Your task to perform on an android device: change notification settings in the gmail app Image 0: 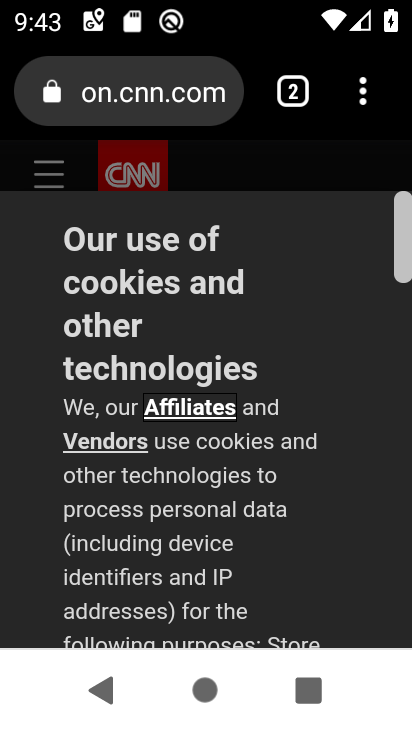
Step 0: press home button
Your task to perform on an android device: change notification settings in the gmail app Image 1: 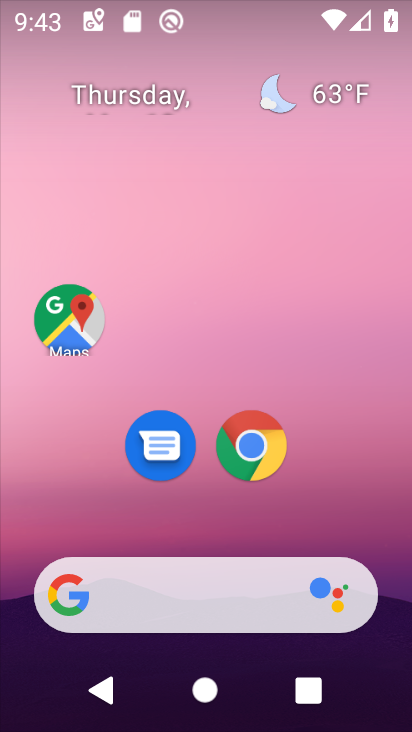
Step 1: drag from (292, 486) to (298, 247)
Your task to perform on an android device: change notification settings in the gmail app Image 2: 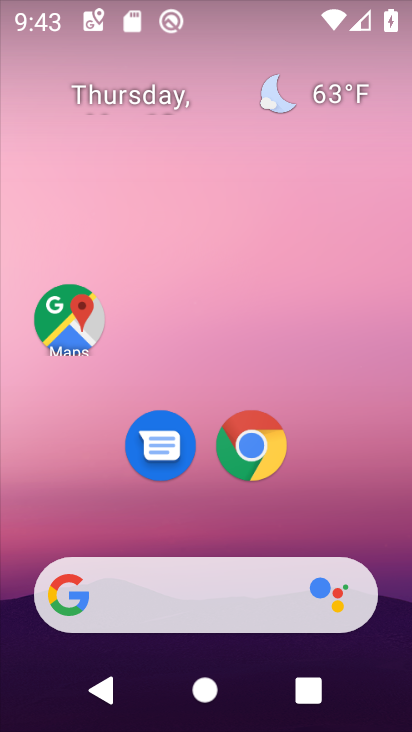
Step 2: drag from (289, 462) to (318, 93)
Your task to perform on an android device: change notification settings in the gmail app Image 3: 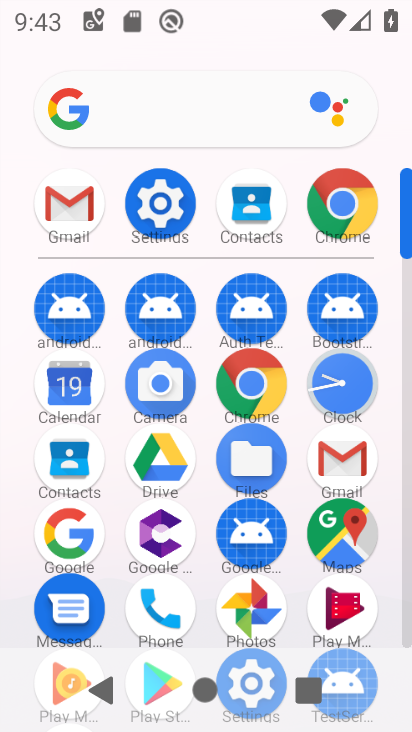
Step 3: click (339, 469)
Your task to perform on an android device: change notification settings in the gmail app Image 4: 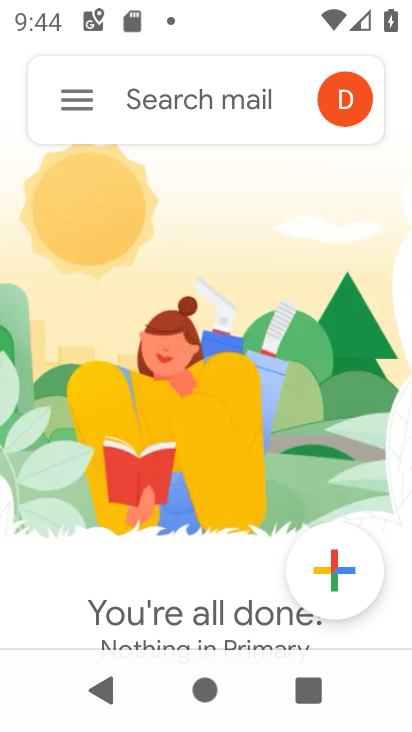
Step 4: click (54, 104)
Your task to perform on an android device: change notification settings in the gmail app Image 5: 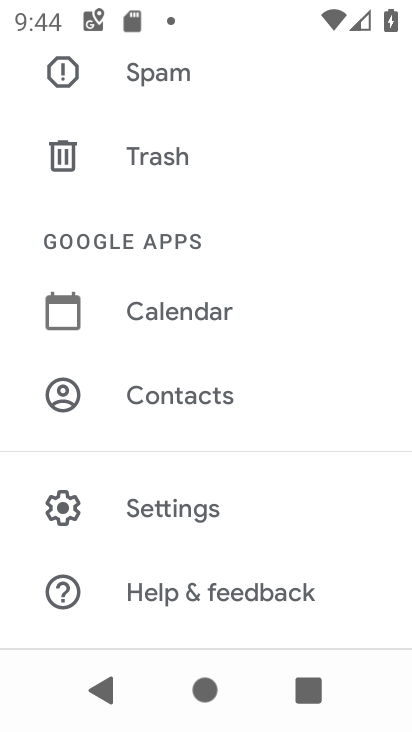
Step 5: click (217, 515)
Your task to perform on an android device: change notification settings in the gmail app Image 6: 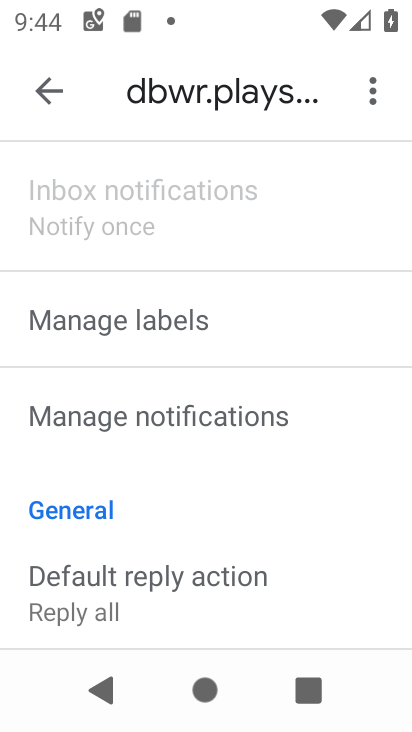
Step 6: drag from (198, 555) to (229, 295)
Your task to perform on an android device: change notification settings in the gmail app Image 7: 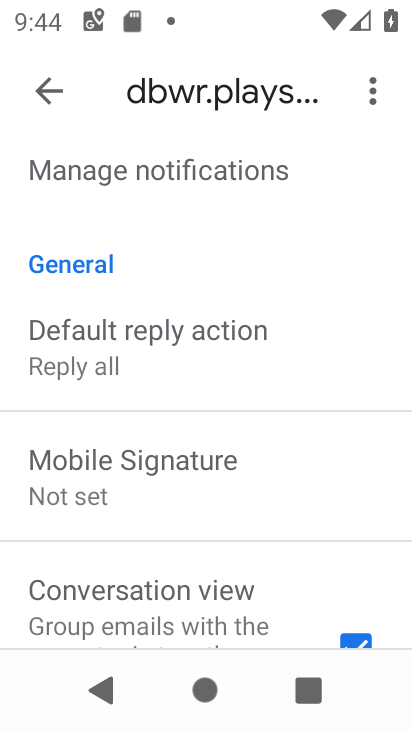
Step 7: drag from (219, 445) to (244, 221)
Your task to perform on an android device: change notification settings in the gmail app Image 8: 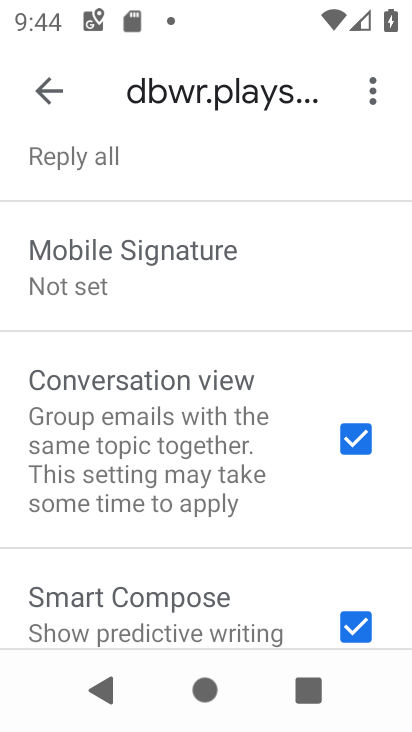
Step 8: drag from (183, 585) to (219, 224)
Your task to perform on an android device: change notification settings in the gmail app Image 9: 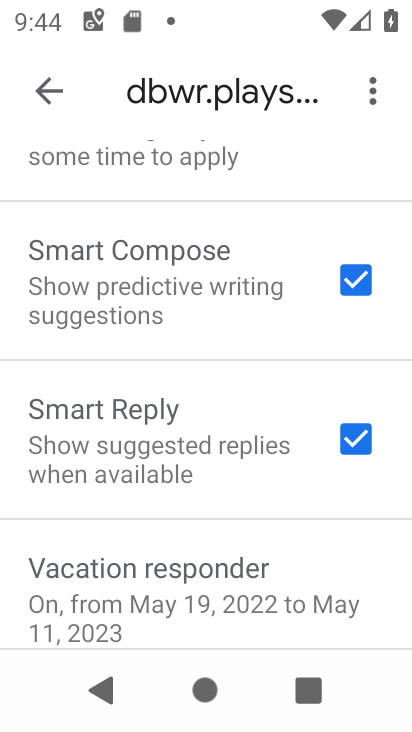
Step 9: drag from (229, 553) to (218, 209)
Your task to perform on an android device: change notification settings in the gmail app Image 10: 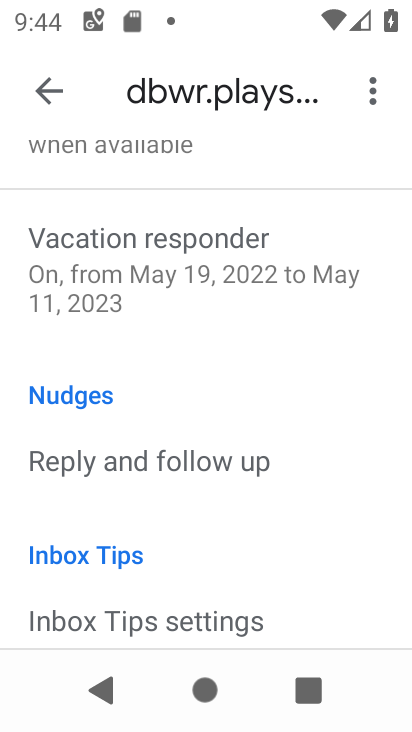
Step 10: drag from (229, 245) to (258, 715)
Your task to perform on an android device: change notification settings in the gmail app Image 11: 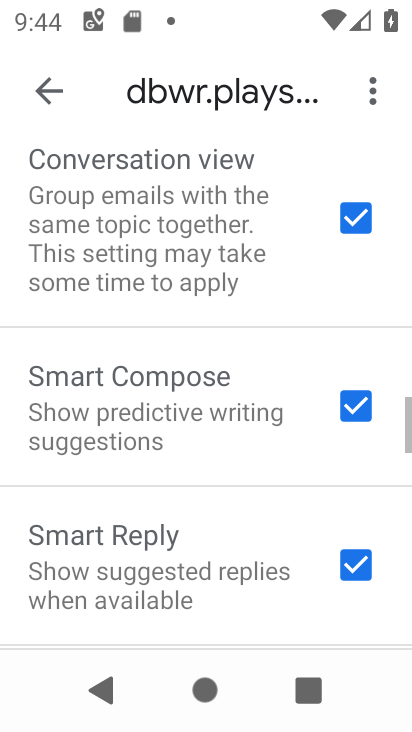
Step 11: drag from (206, 265) to (254, 720)
Your task to perform on an android device: change notification settings in the gmail app Image 12: 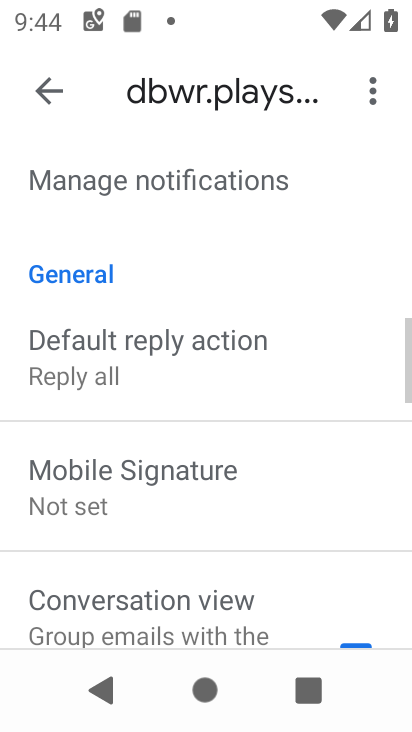
Step 12: drag from (185, 274) to (214, 591)
Your task to perform on an android device: change notification settings in the gmail app Image 13: 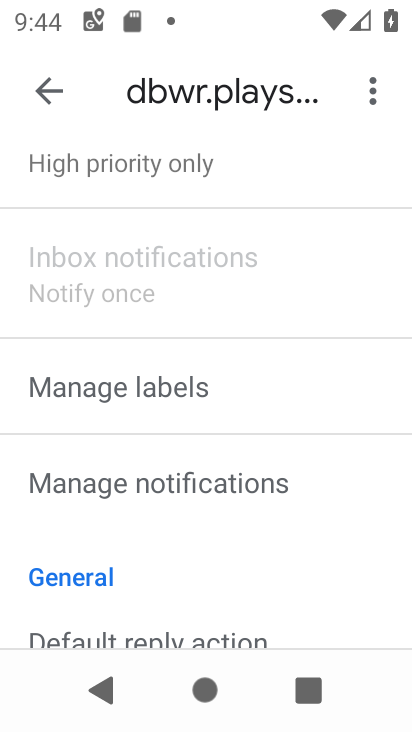
Step 13: click (203, 508)
Your task to perform on an android device: change notification settings in the gmail app Image 14: 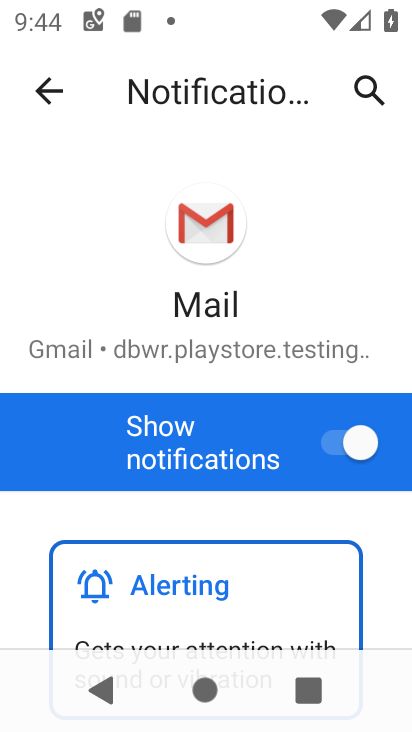
Step 14: click (339, 438)
Your task to perform on an android device: change notification settings in the gmail app Image 15: 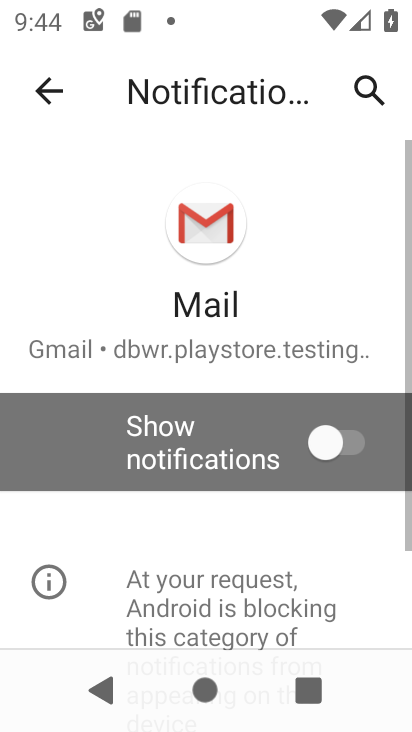
Step 15: task complete